Your task to perform on an android device: see sites visited before in the chrome app Image 0: 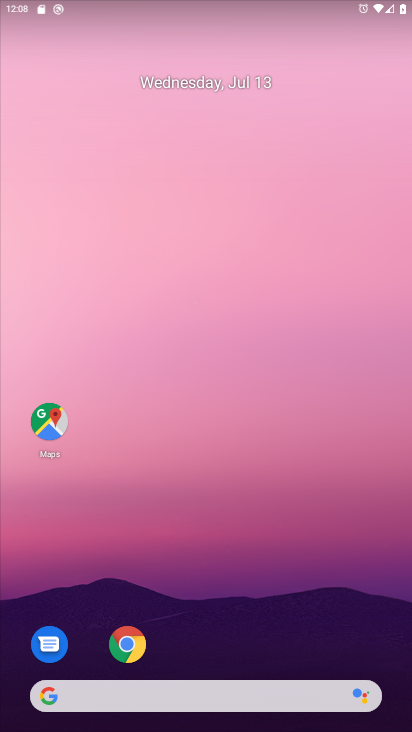
Step 0: drag from (227, 572) to (181, 199)
Your task to perform on an android device: see sites visited before in the chrome app Image 1: 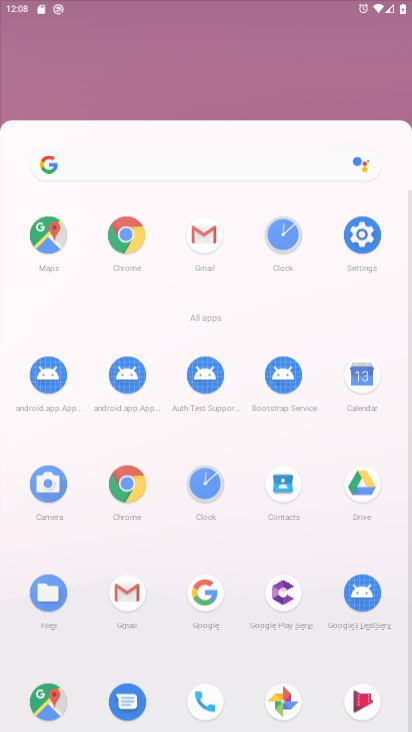
Step 1: drag from (222, 563) to (169, 288)
Your task to perform on an android device: see sites visited before in the chrome app Image 2: 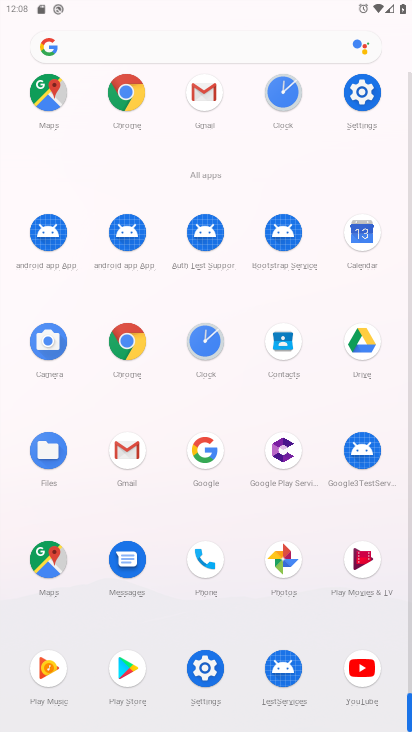
Step 2: click (119, 337)
Your task to perform on an android device: see sites visited before in the chrome app Image 3: 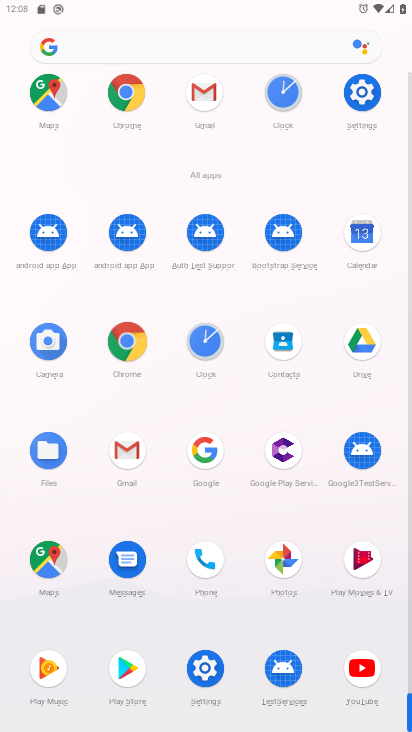
Step 3: click (119, 337)
Your task to perform on an android device: see sites visited before in the chrome app Image 4: 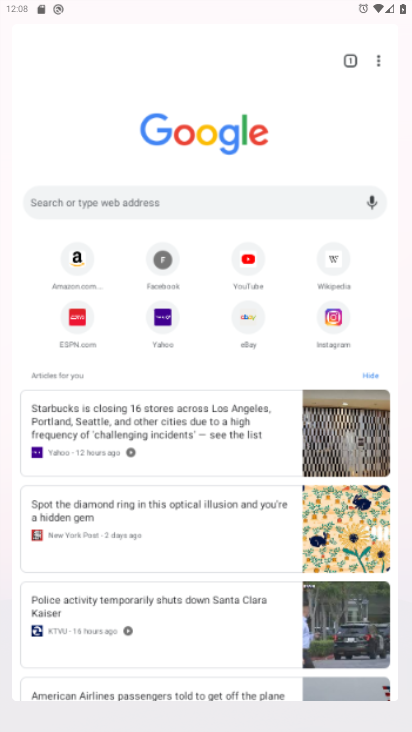
Step 4: click (119, 337)
Your task to perform on an android device: see sites visited before in the chrome app Image 5: 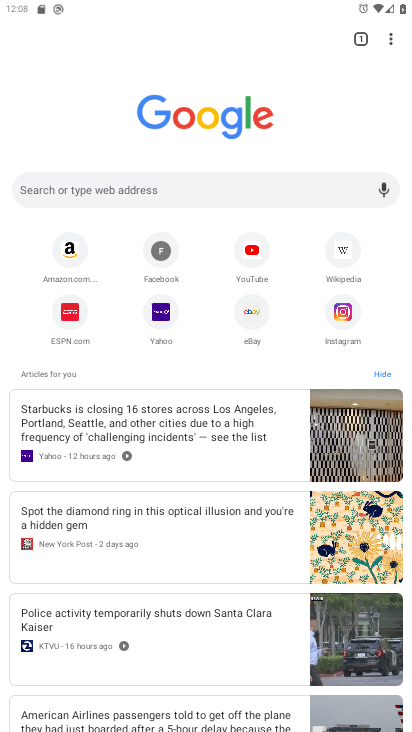
Step 5: drag from (395, 37) to (255, 224)
Your task to perform on an android device: see sites visited before in the chrome app Image 6: 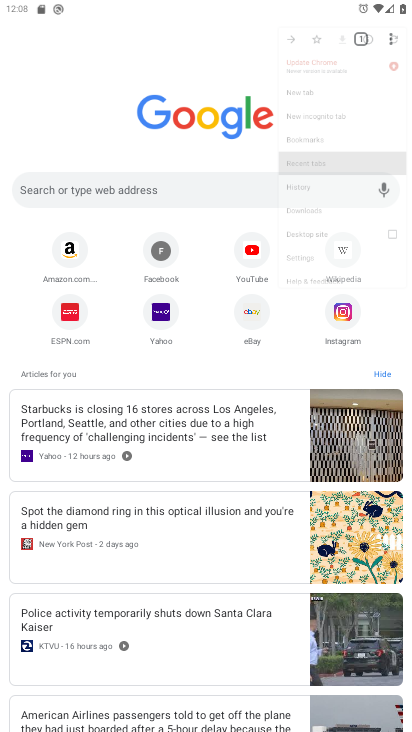
Step 6: click (243, 216)
Your task to perform on an android device: see sites visited before in the chrome app Image 7: 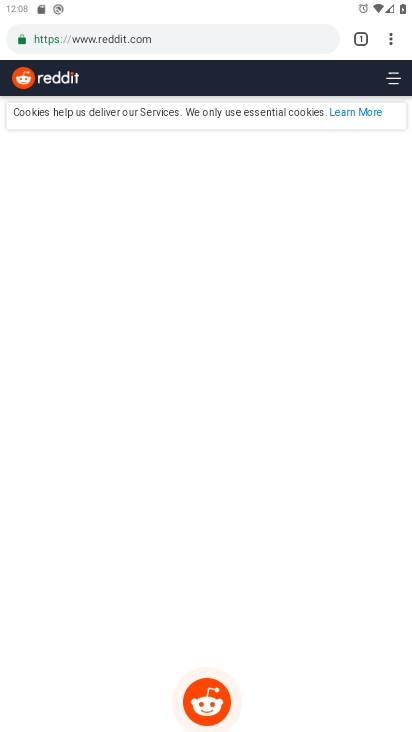
Step 7: task complete